Your task to perform on an android device: What's the weather going to be this weekend? Image 0: 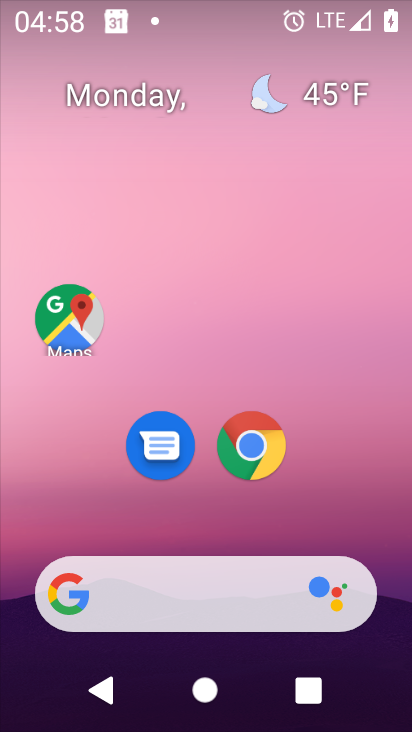
Step 0: drag from (285, 540) to (388, 5)
Your task to perform on an android device: What's the weather going to be this weekend? Image 1: 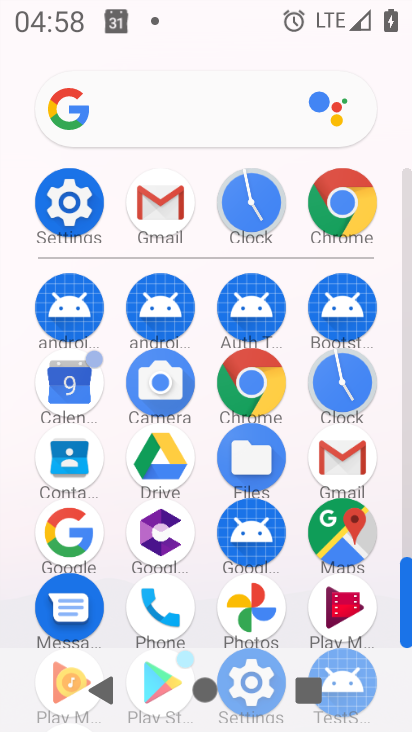
Step 1: click (157, 122)
Your task to perform on an android device: What's the weather going to be this weekend? Image 2: 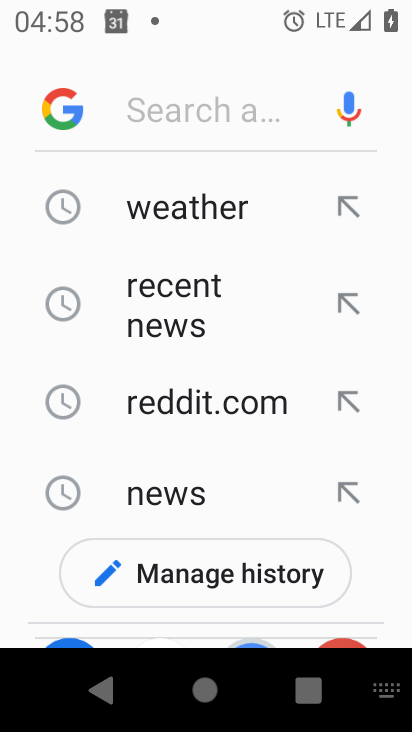
Step 2: type "what's the weather going to be this weekend"
Your task to perform on an android device: What's the weather going to be this weekend? Image 3: 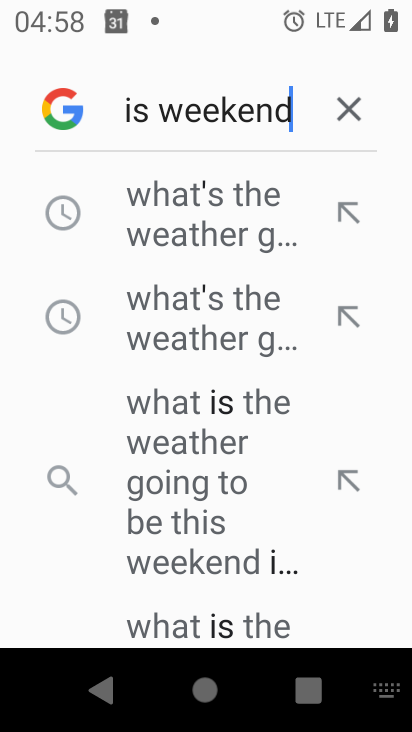
Step 3: click (230, 193)
Your task to perform on an android device: What's the weather going to be this weekend? Image 4: 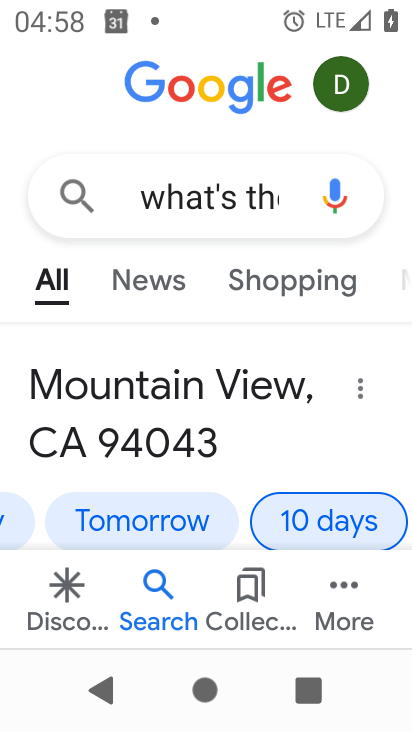
Step 4: task complete